Your task to perform on an android device: toggle javascript in the chrome app Image 0: 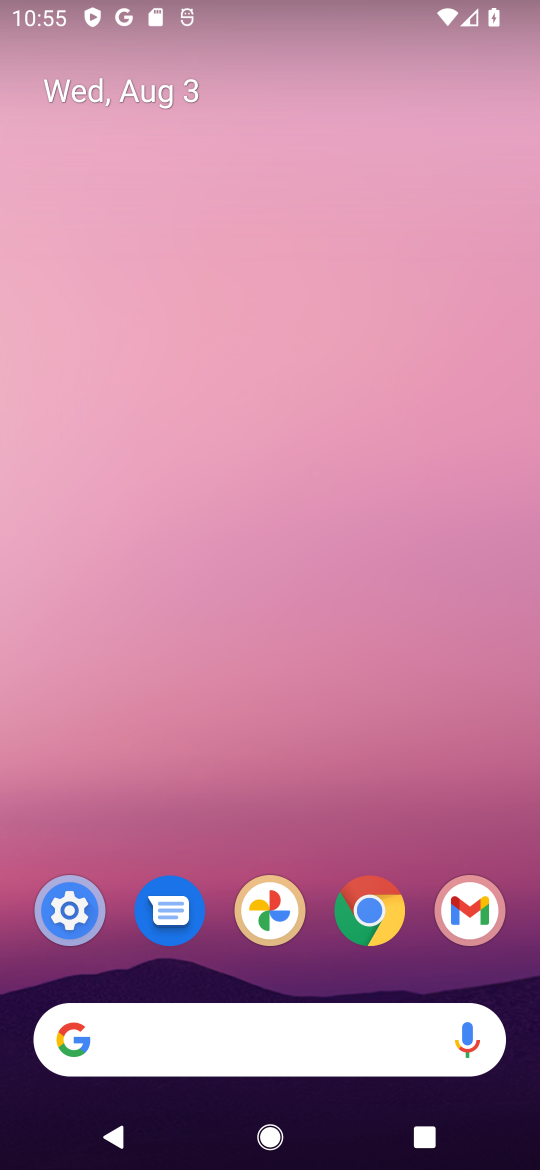
Step 0: click (372, 905)
Your task to perform on an android device: toggle javascript in the chrome app Image 1: 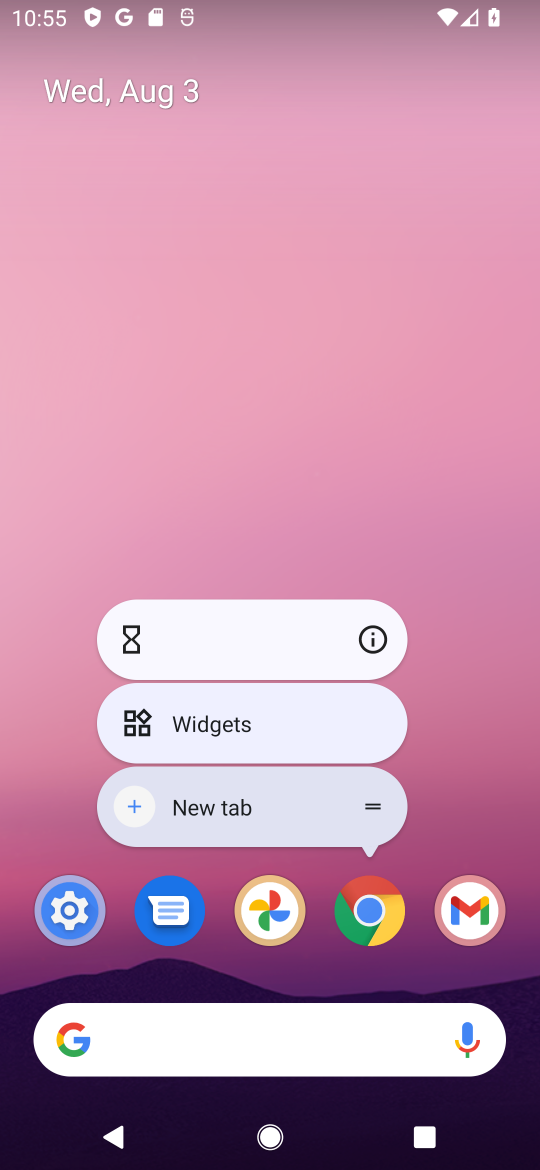
Step 1: click (370, 924)
Your task to perform on an android device: toggle javascript in the chrome app Image 2: 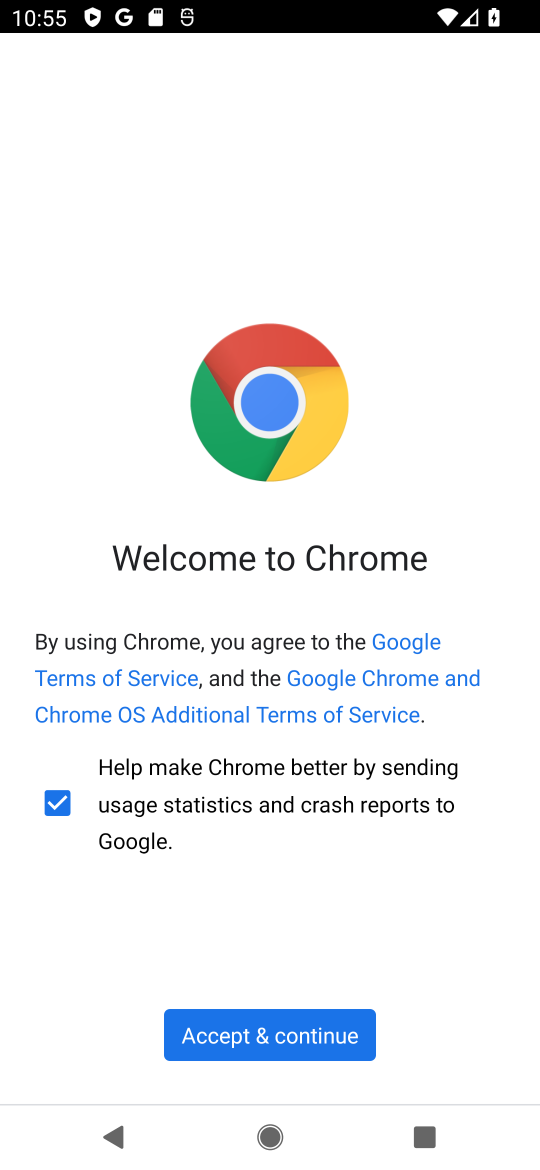
Step 2: click (295, 1032)
Your task to perform on an android device: toggle javascript in the chrome app Image 3: 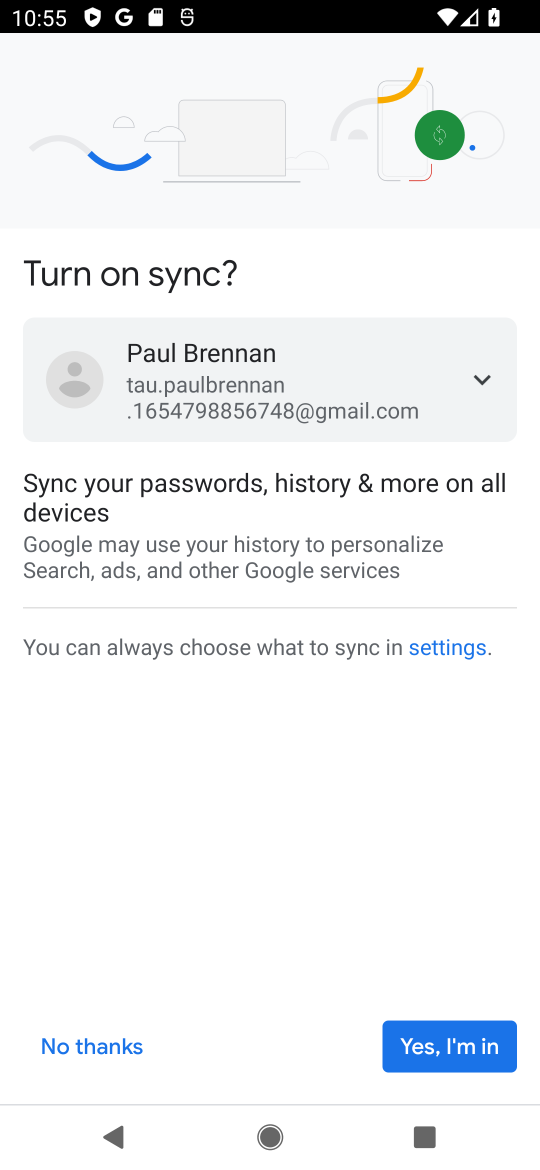
Step 3: click (456, 1043)
Your task to perform on an android device: toggle javascript in the chrome app Image 4: 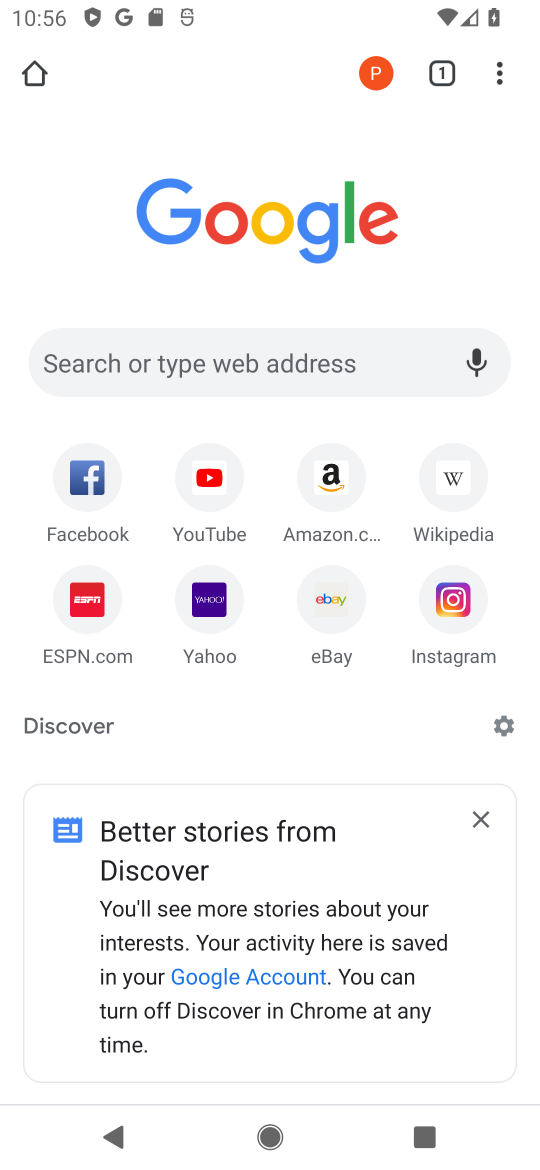
Step 4: click (504, 76)
Your task to perform on an android device: toggle javascript in the chrome app Image 5: 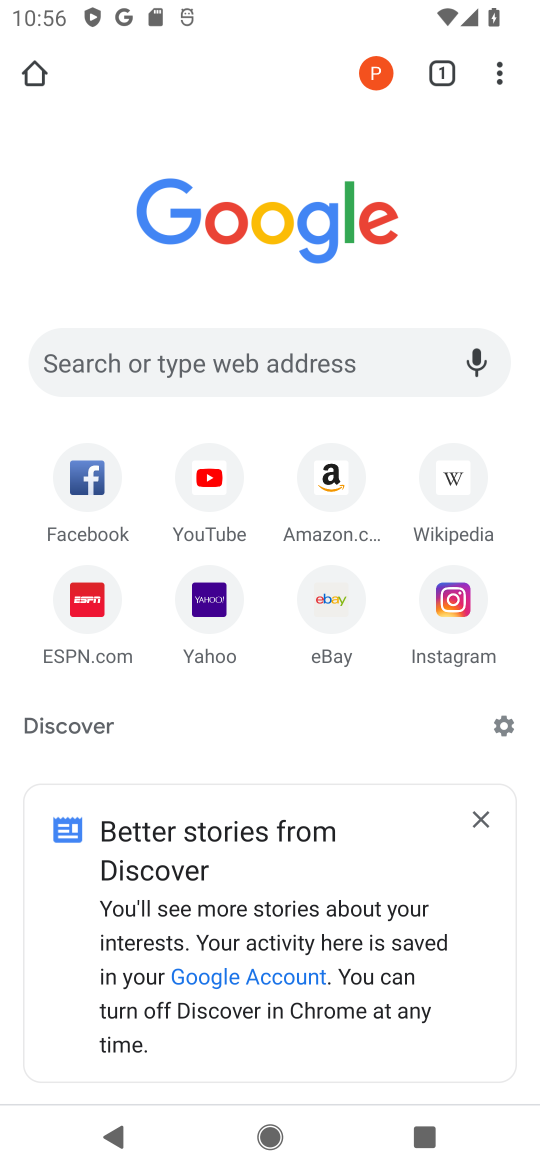
Step 5: drag from (504, 76) to (252, 672)
Your task to perform on an android device: toggle javascript in the chrome app Image 6: 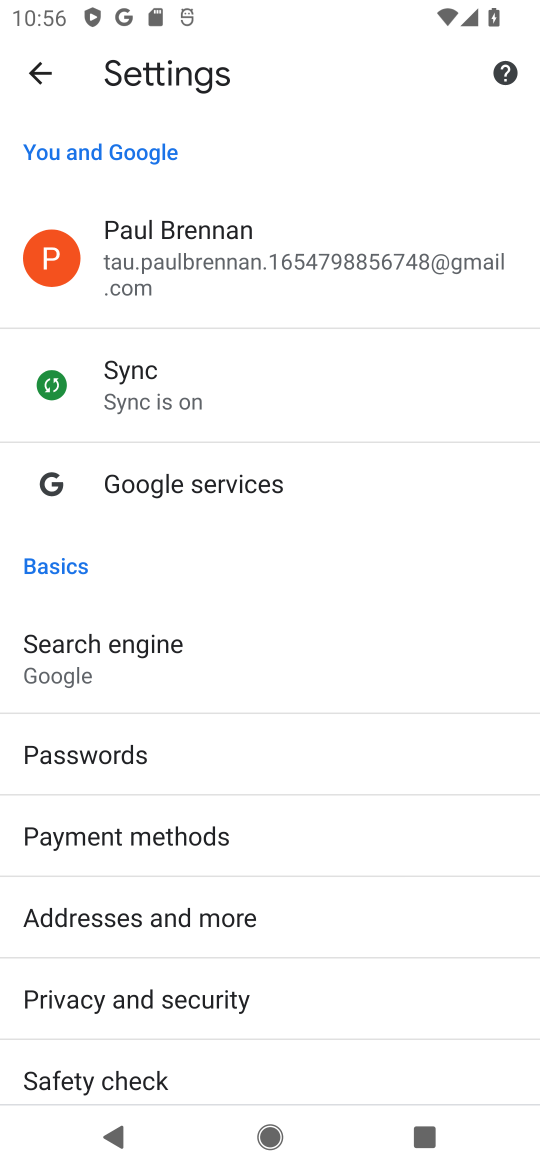
Step 6: drag from (361, 1046) to (455, 678)
Your task to perform on an android device: toggle javascript in the chrome app Image 7: 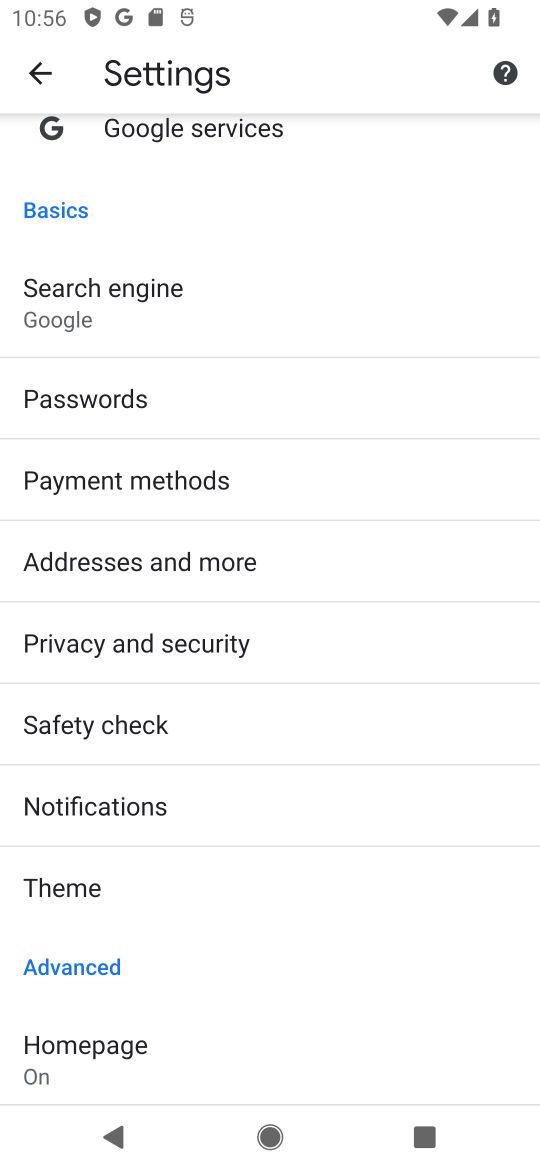
Step 7: drag from (214, 969) to (287, 234)
Your task to perform on an android device: toggle javascript in the chrome app Image 8: 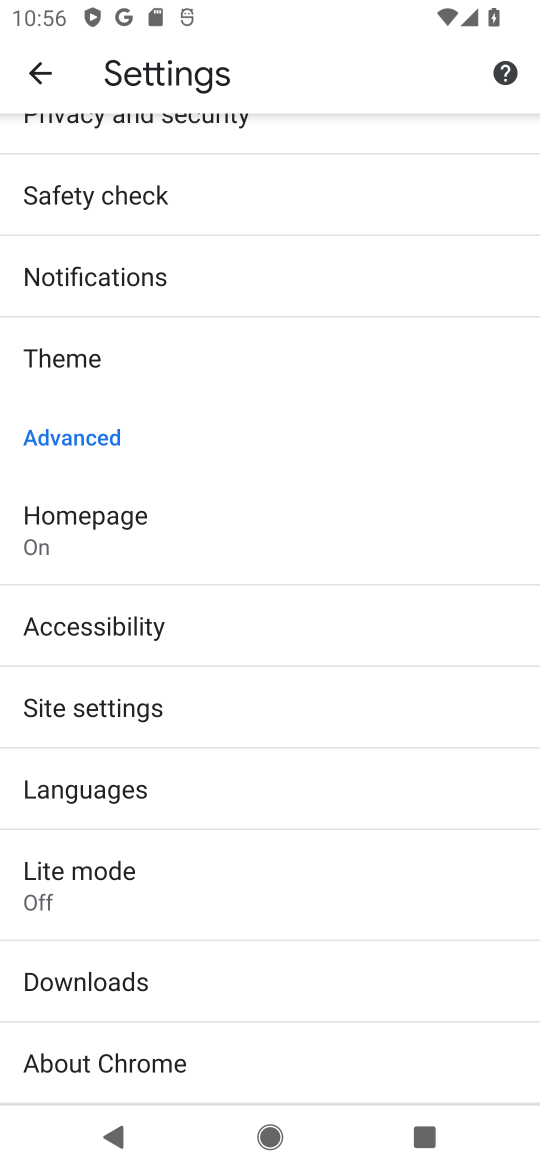
Step 8: click (93, 707)
Your task to perform on an android device: toggle javascript in the chrome app Image 9: 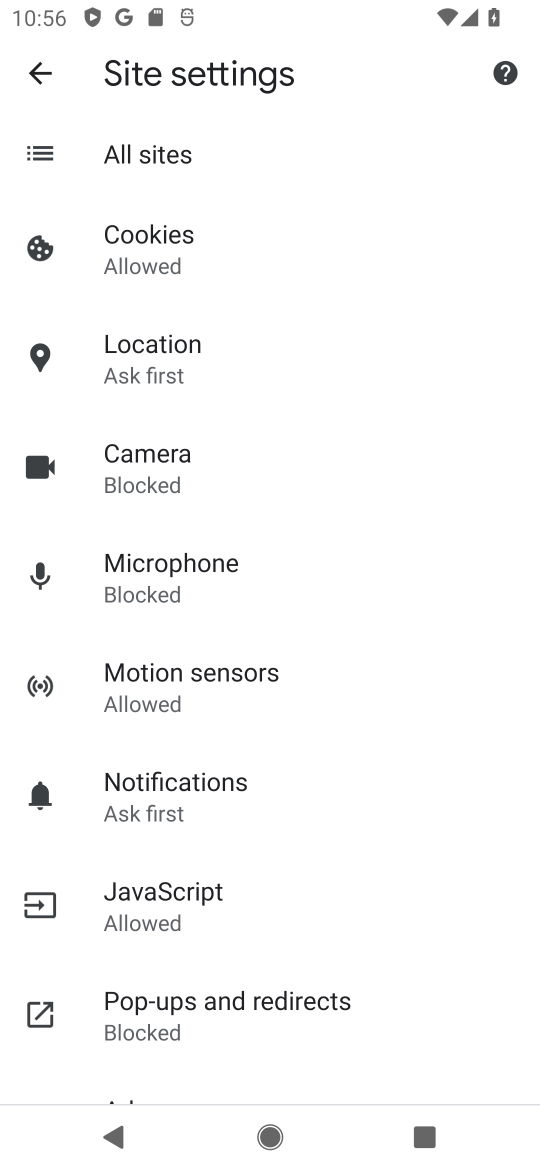
Step 9: click (159, 909)
Your task to perform on an android device: toggle javascript in the chrome app Image 10: 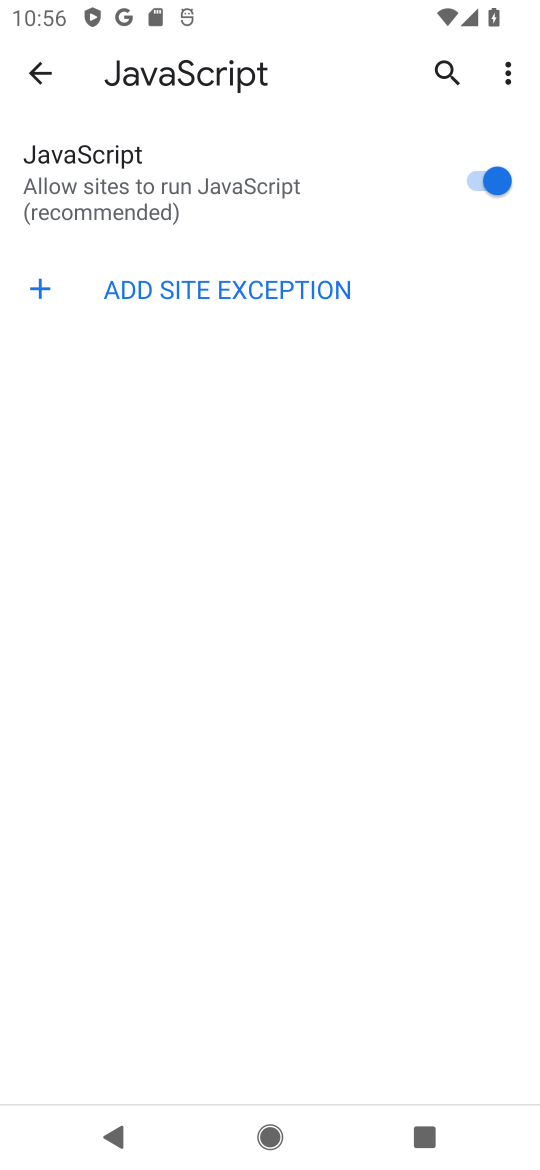
Step 10: click (496, 182)
Your task to perform on an android device: toggle javascript in the chrome app Image 11: 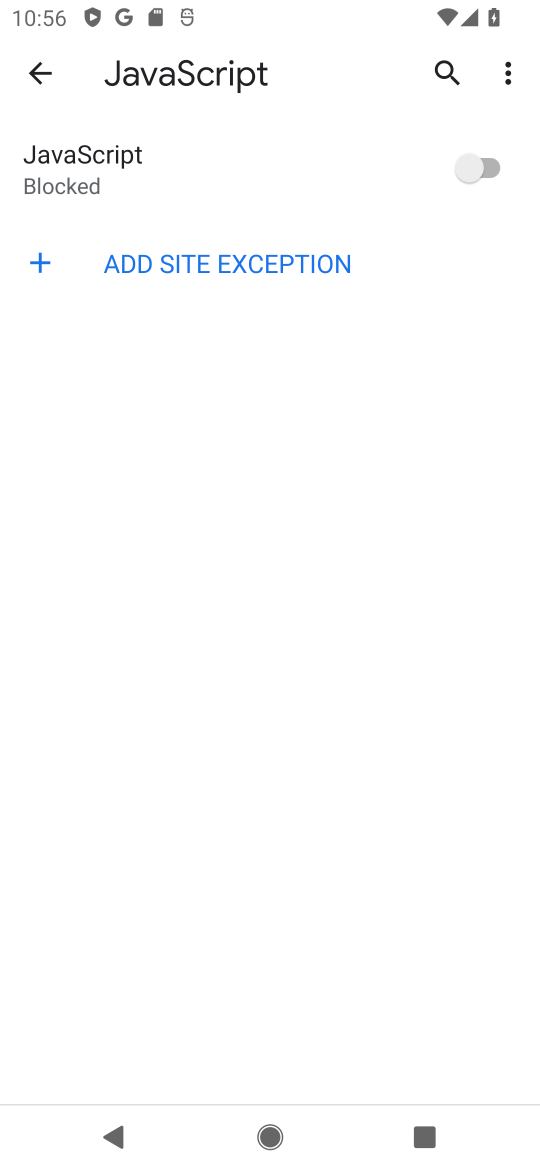
Step 11: task complete